Your task to perform on an android device: What's the price of the new iPhone on eBay? Image 0: 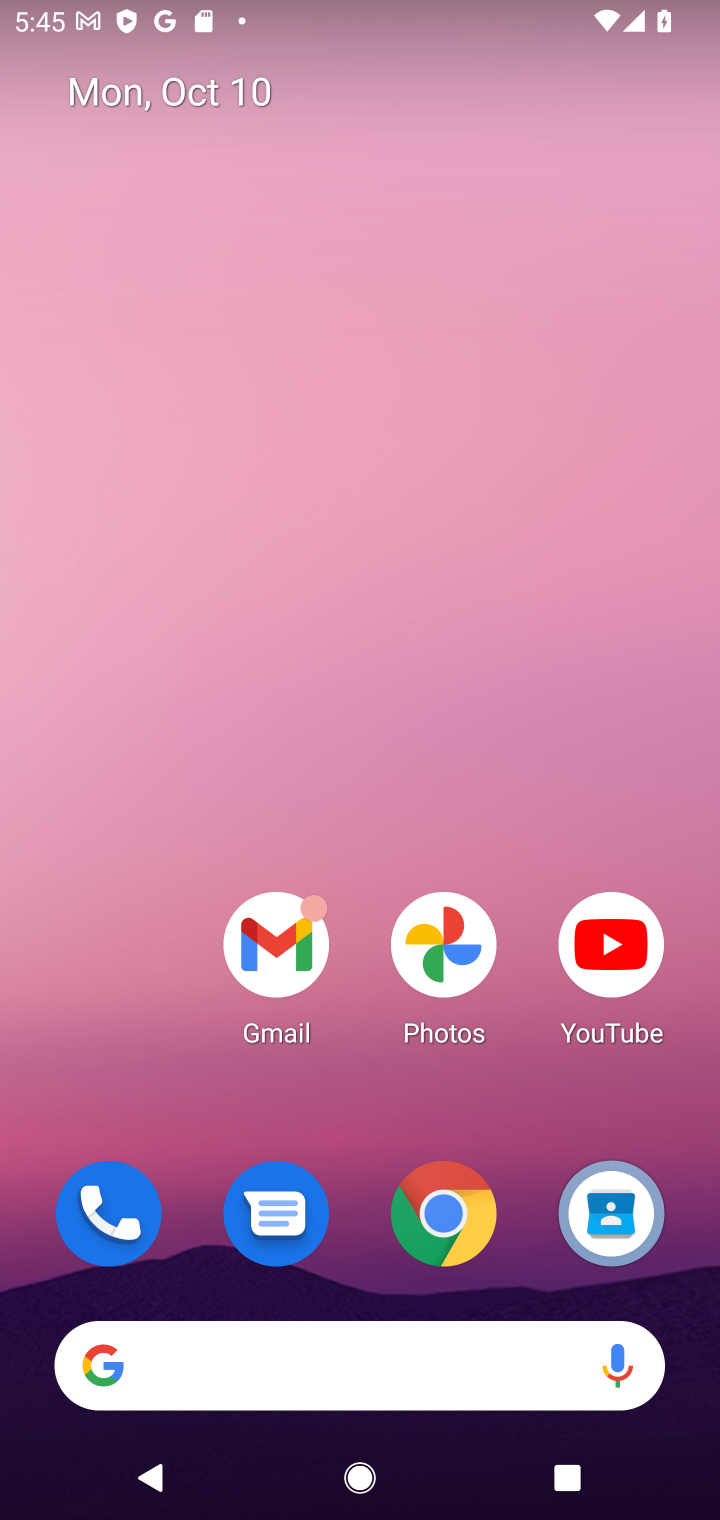
Step 0: click (270, 1344)
Your task to perform on an android device: What's the price of the new iPhone on eBay? Image 1: 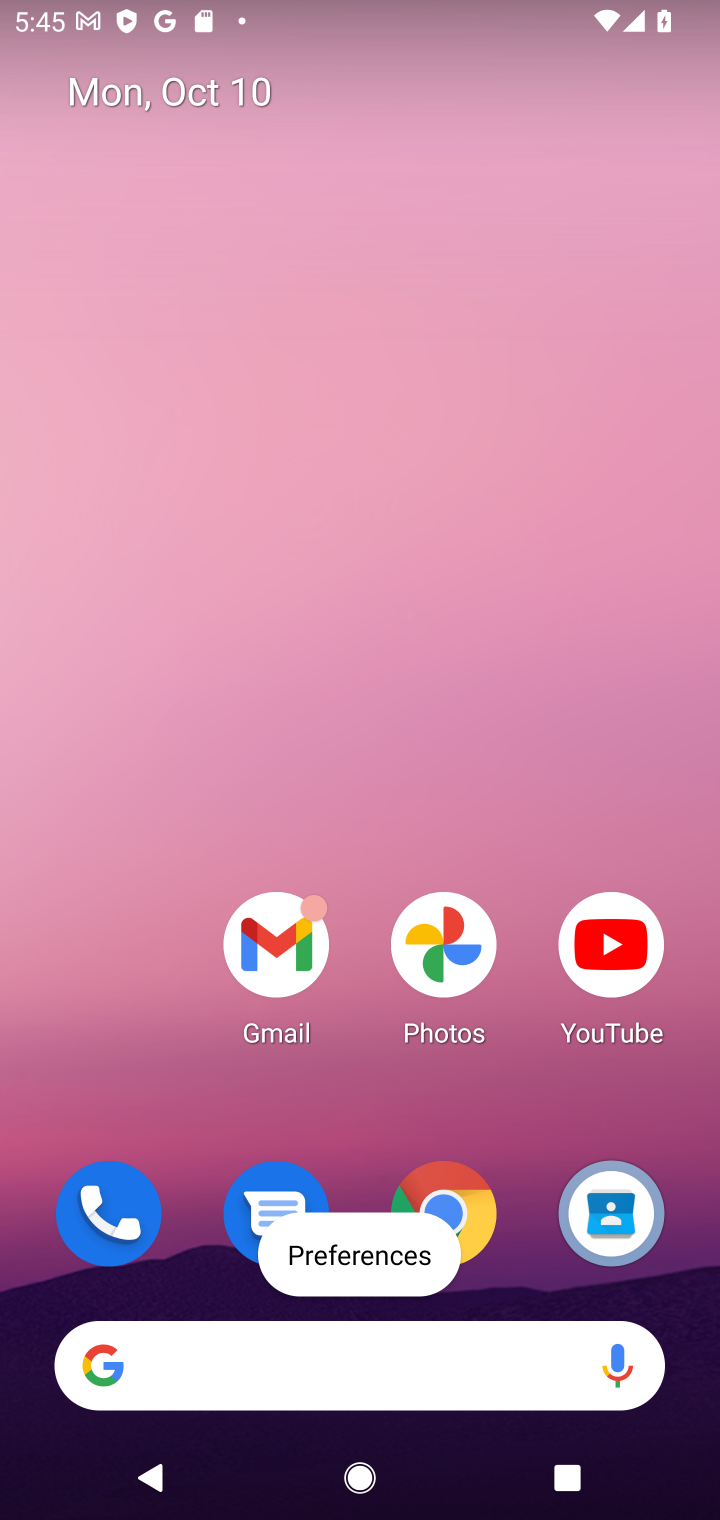
Step 1: click (337, 1351)
Your task to perform on an android device: What's the price of the new iPhone on eBay? Image 2: 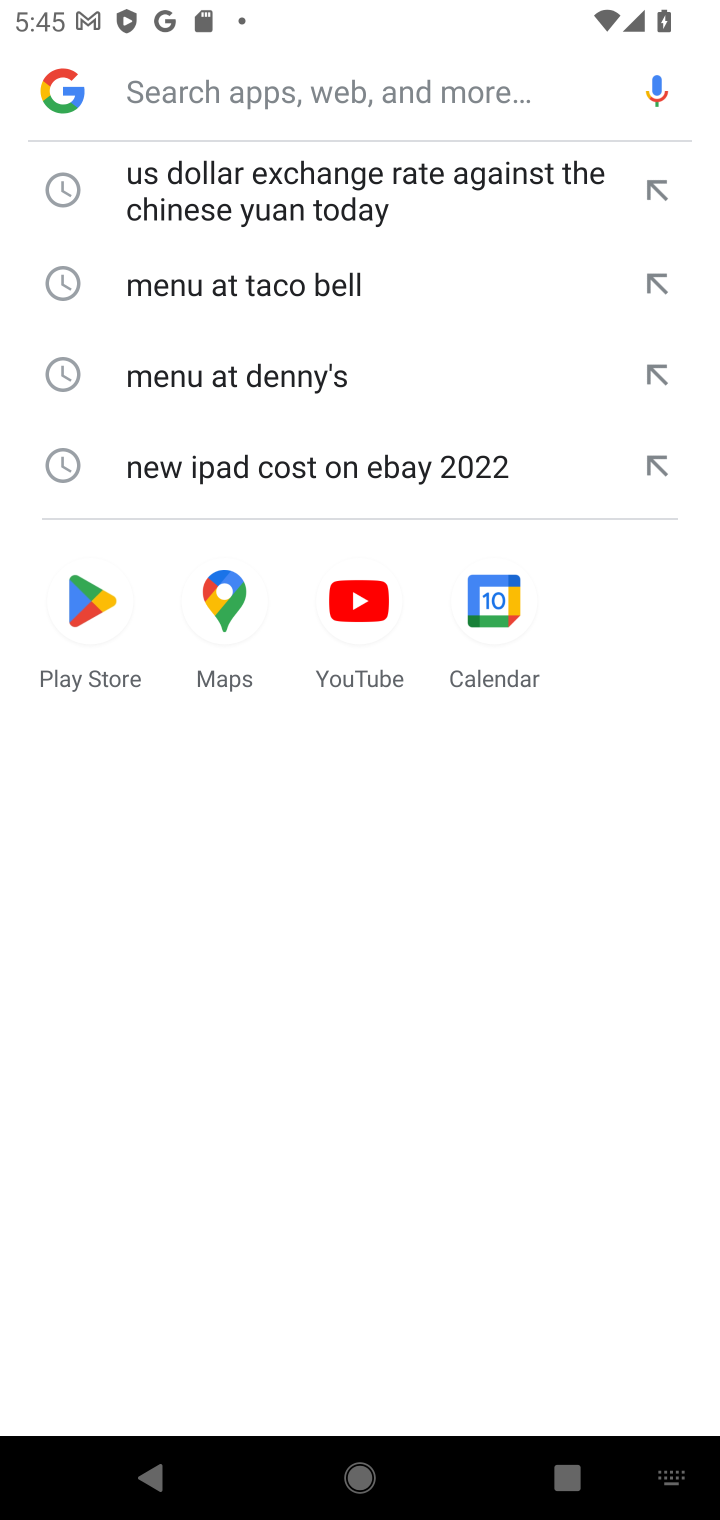
Step 2: type "new iPhone on eBay"
Your task to perform on an android device: What's the price of the new iPhone on eBay? Image 3: 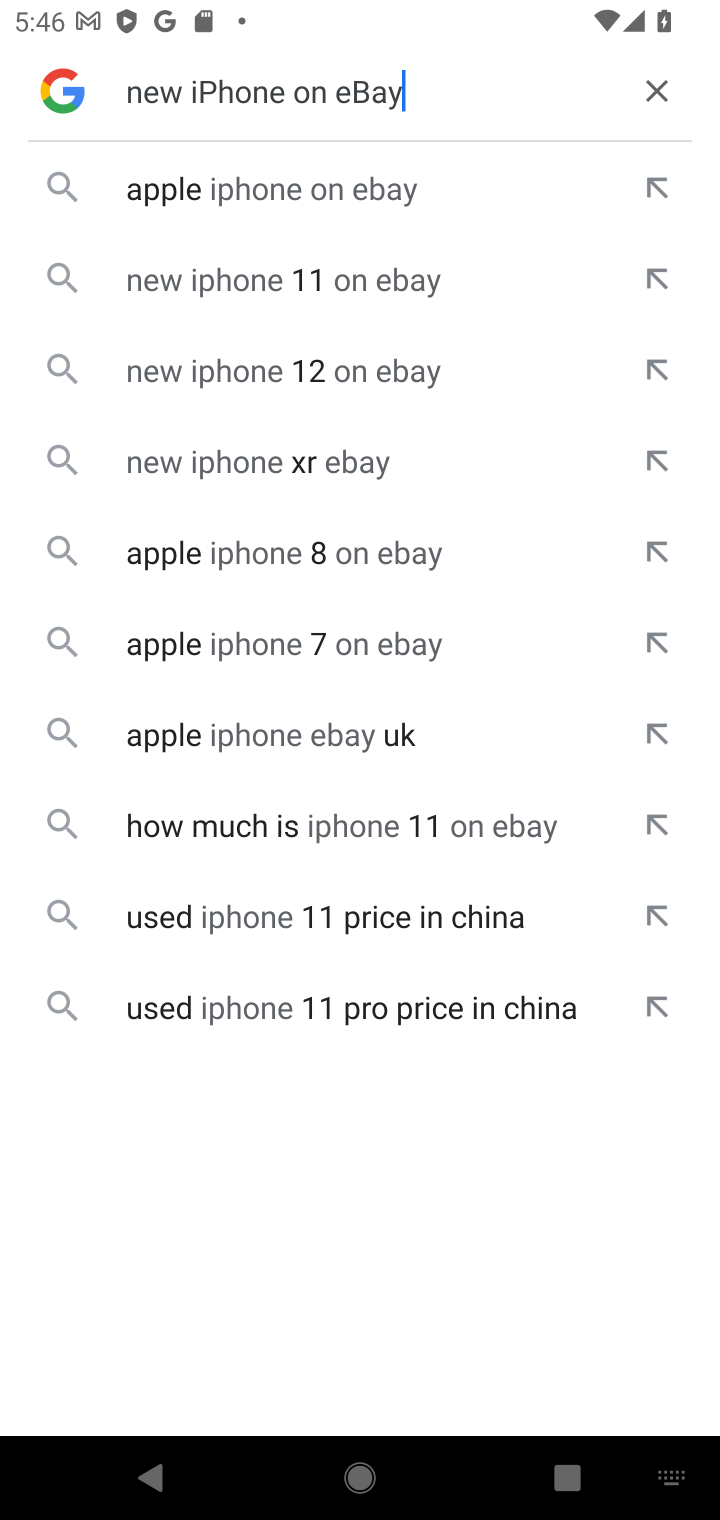
Step 3: click (318, 188)
Your task to perform on an android device: What's the price of the new iPhone on eBay? Image 4: 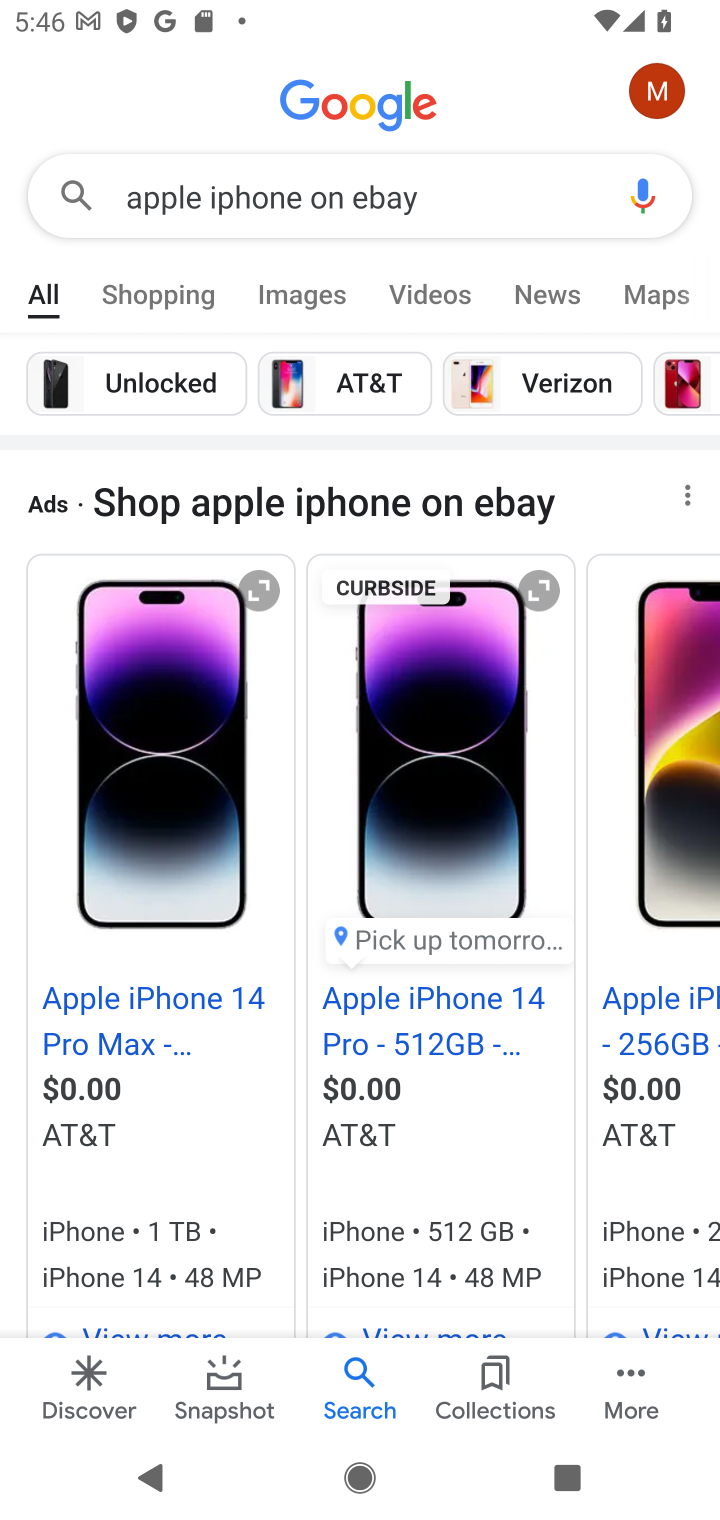
Step 4: task complete